Your task to perform on an android device: check data usage Image 0: 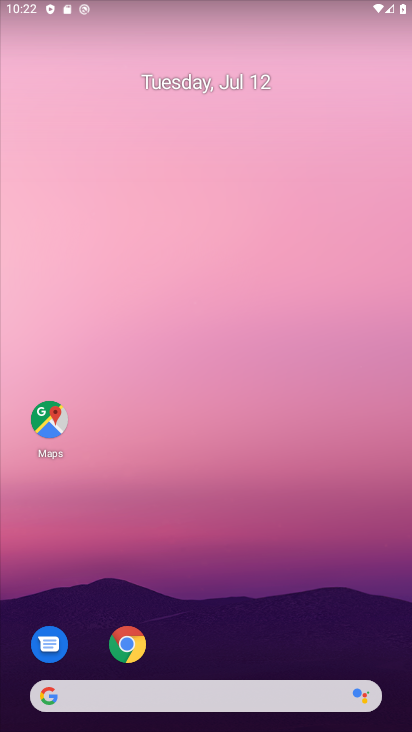
Step 0: drag from (188, 622) to (214, 83)
Your task to perform on an android device: check data usage Image 1: 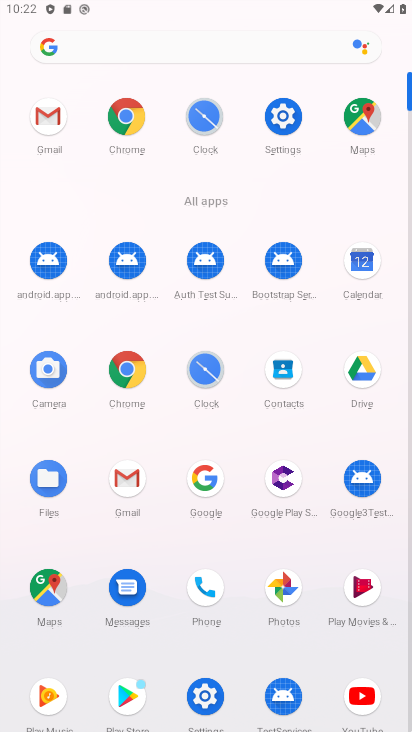
Step 1: click (279, 121)
Your task to perform on an android device: check data usage Image 2: 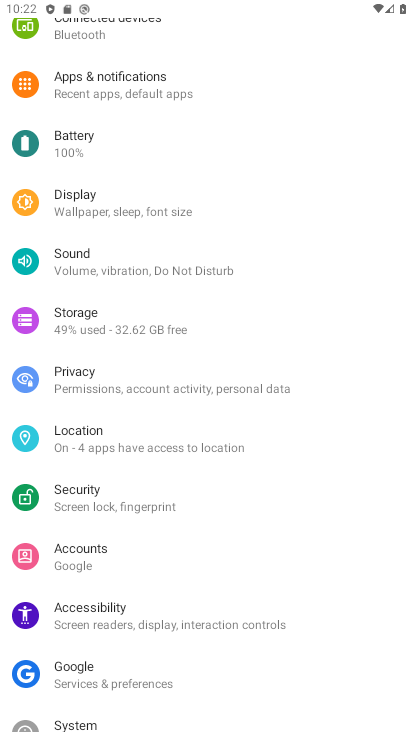
Step 2: drag from (138, 76) to (187, 457)
Your task to perform on an android device: check data usage Image 3: 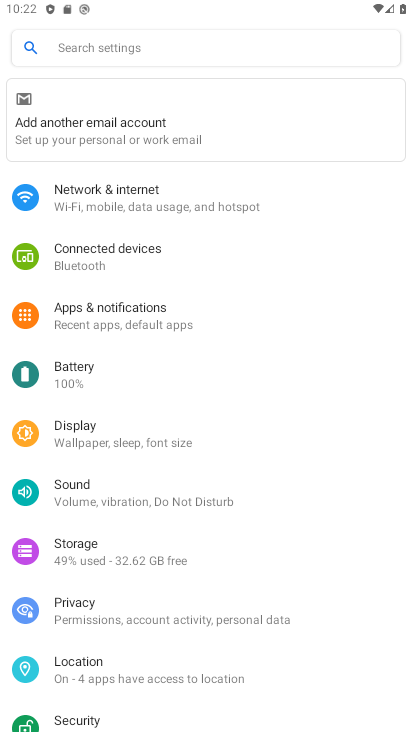
Step 3: click (123, 201)
Your task to perform on an android device: check data usage Image 4: 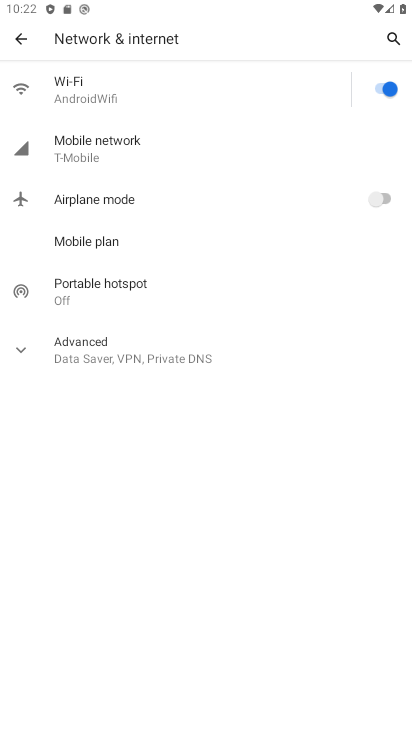
Step 4: click (128, 142)
Your task to perform on an android device: check data usage Image 5: 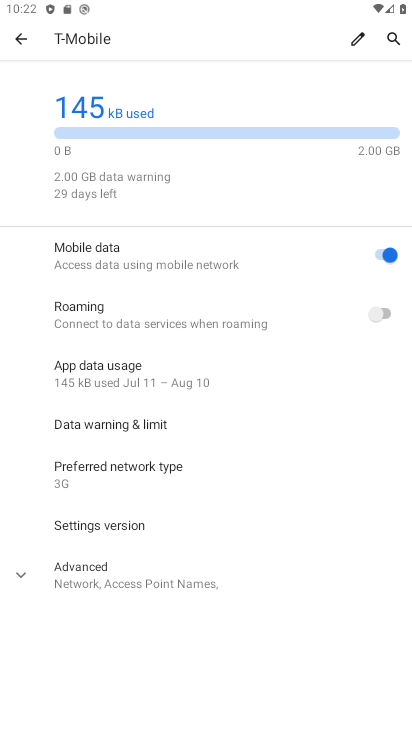
Step 5: task complete